Your task to perform on an android device: turn on location history Image 0: 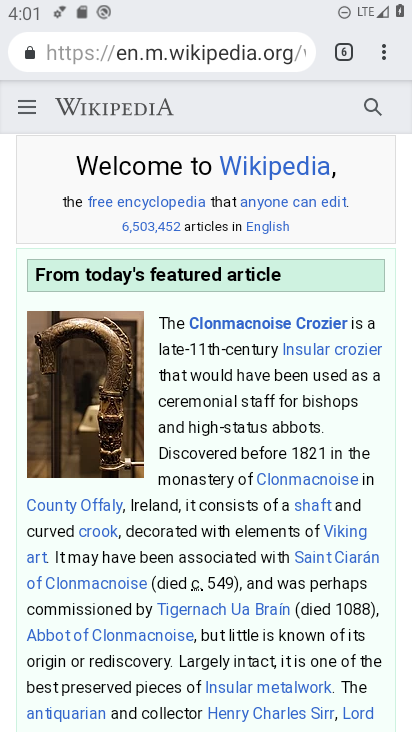
Step 0: press home button
Your task to perform on an android device: turn on location history Image 1: 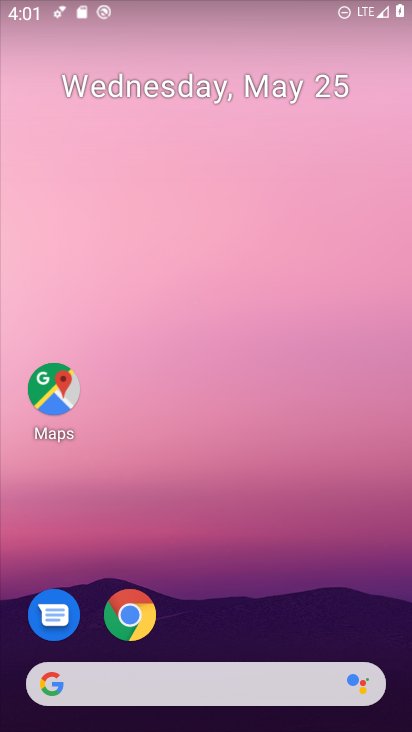
Step 1: drag from (239, 598) to (296, 62)
Your task to perform on an android device: turn on location history Image 2: 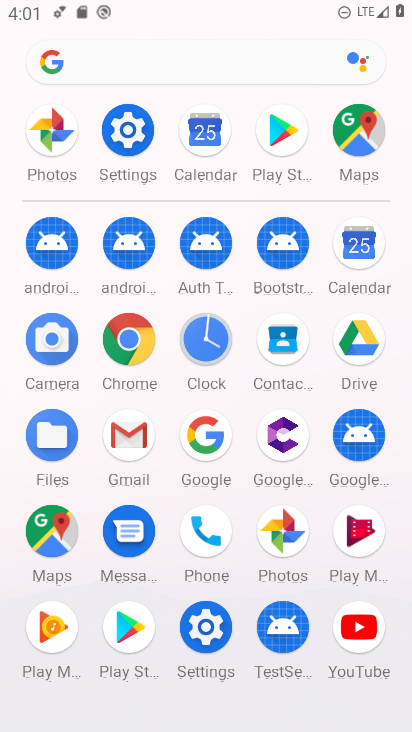
Step 2: click (131, 129)
Your task to perform on an android device: turn on location history Image 3: 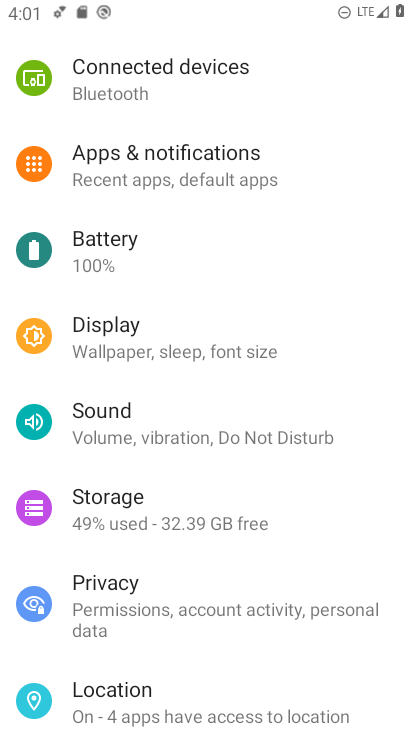
Step 3: click (208, 700)
Your task to perform on an android device: turn on location history Image 4: 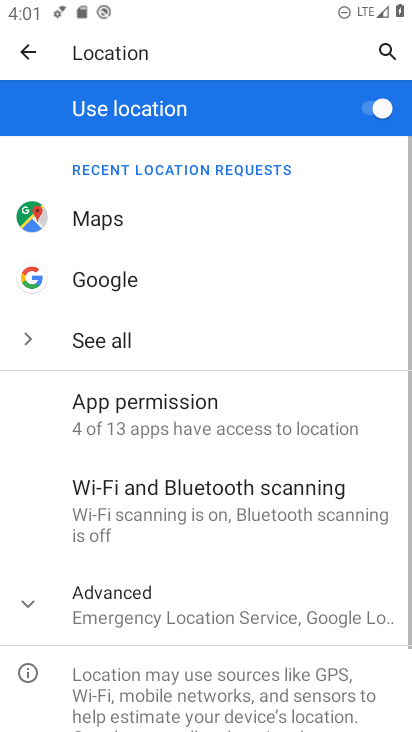
Step 4: click (27, 595)
Your task to perform on an android device: turn on location history Image 5: 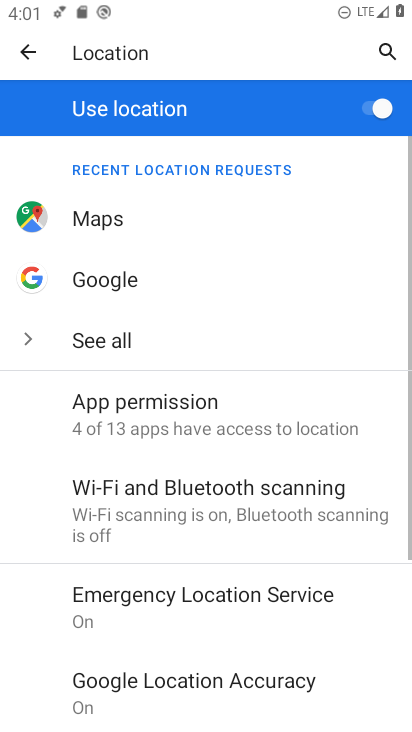
Step 5: task complete